Your task to perform on an android device: Search for Italian restaurants on Maps Image 0: 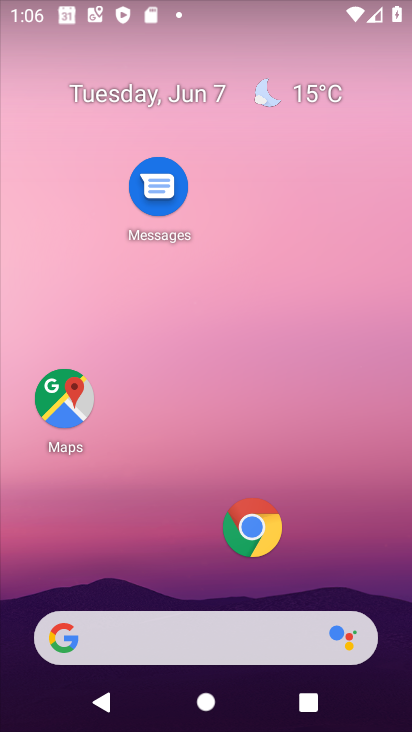
Step 0: click (57, 395)
Your task to perform on an android device: Search for Italian restaurants on Maps Image 1: 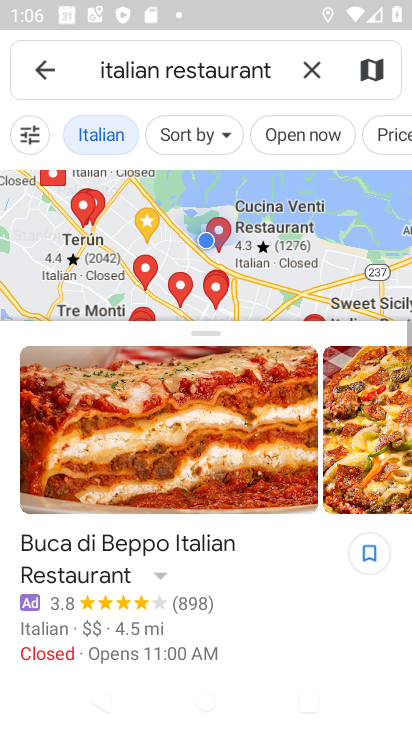
Step 1: task complete